Your task to perform on an android device: Empty the shopping cart on costco. Add macbook to the cart on costco Image 0: 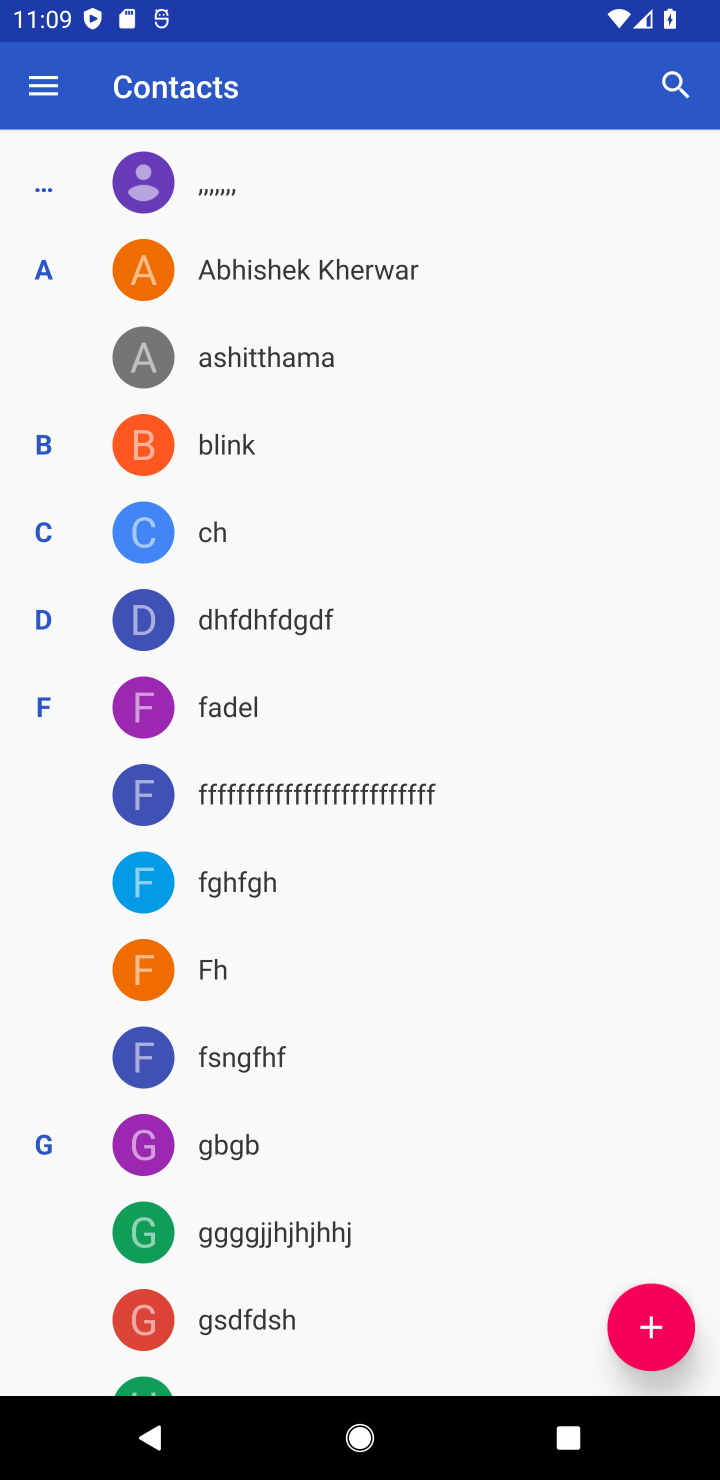
Step 0: press home button
Your task to perform on an android device: Empty the shopping cart on costco. Add macbook to the cart on costco Image 1: 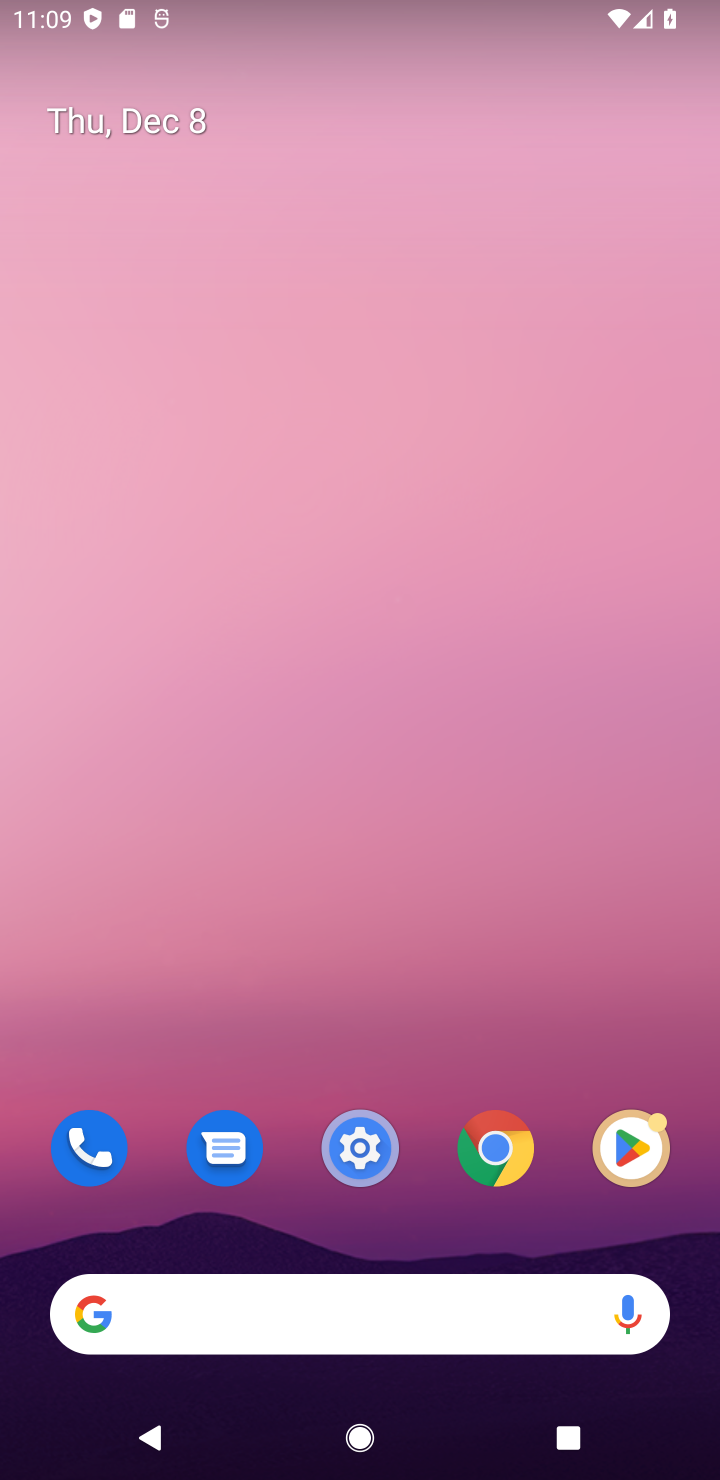
Step 1: click (298, 1316)
Your task to perform on an android device: Empty the shopping cart on costco. Add macbook to the cart on costco Image 2: 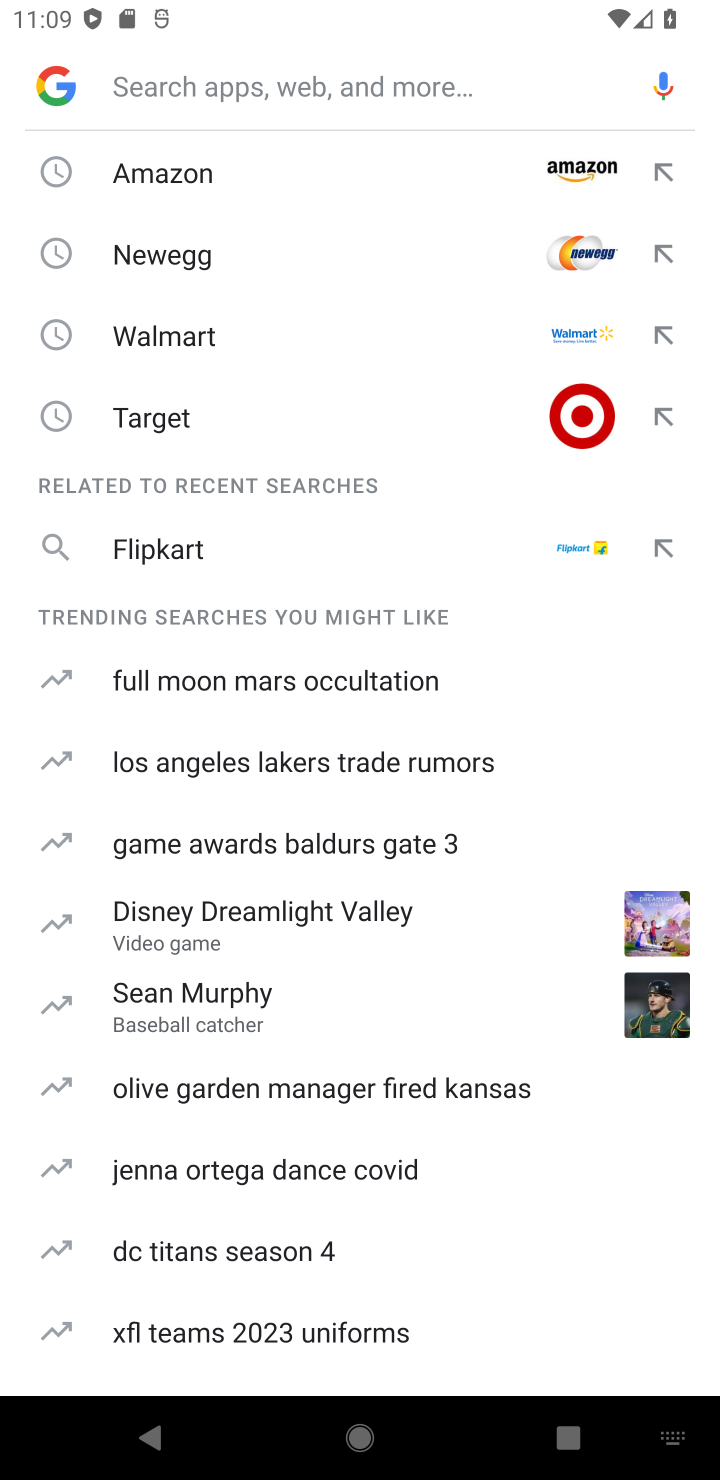
Step 2: type "costco"
Your task to perform on an android device: Empty the shopping cart on costco. Add macbook to the cart on costco Image 3: 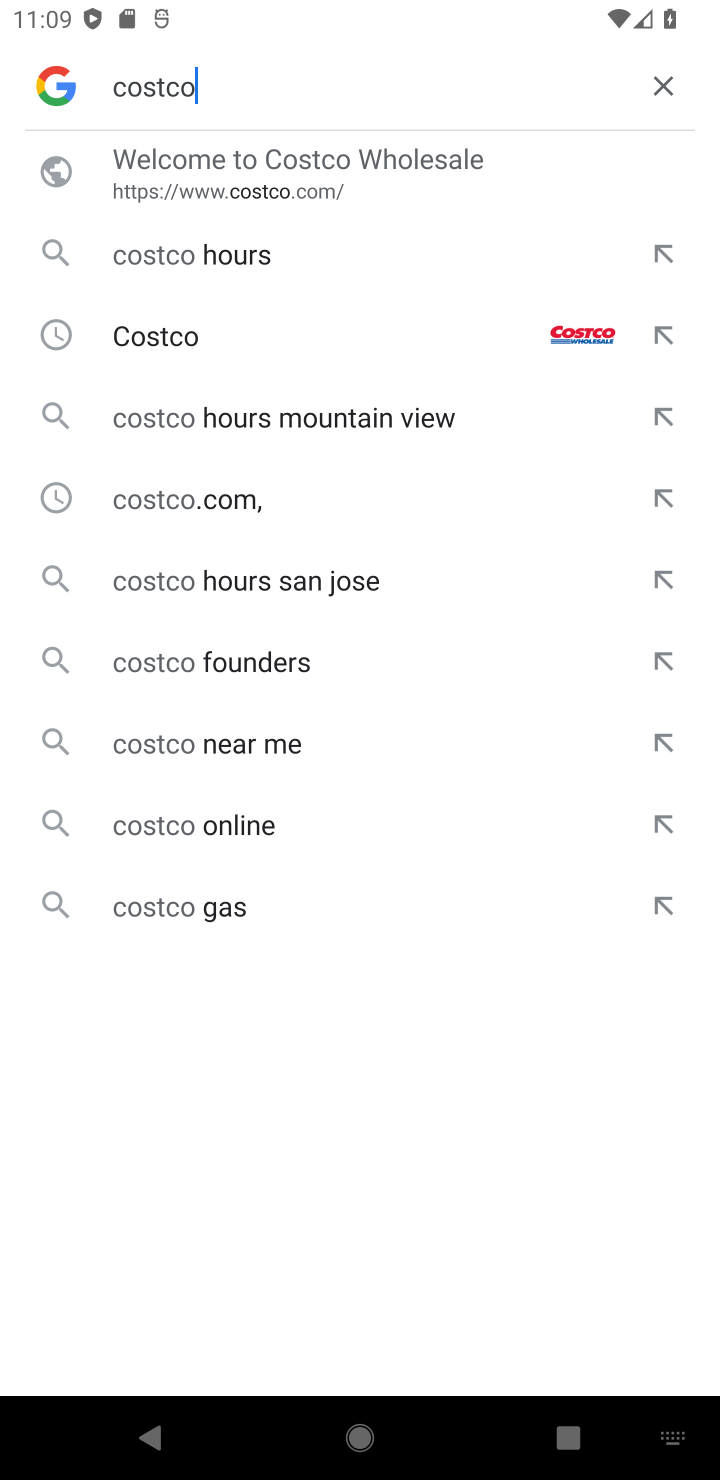
Step 3: click (170, 338)
Your task to perform on an android device: Empty the shopping cart on costco. Add macbook to the cart on costco Image 4: 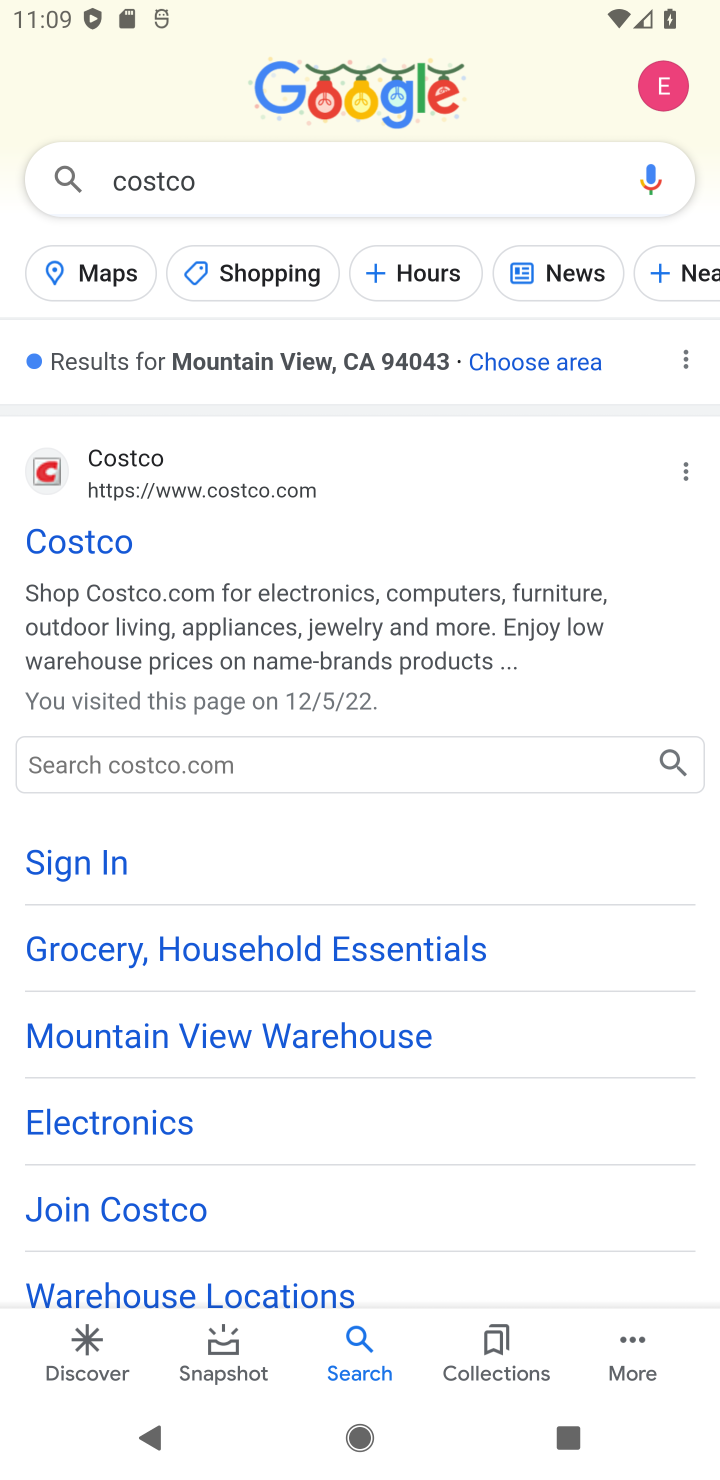
Step 4: click (85, 520)
Your task to perform on an android device: Empty the shopping cart on costco. Add macbook to the cart on costco Image 5: 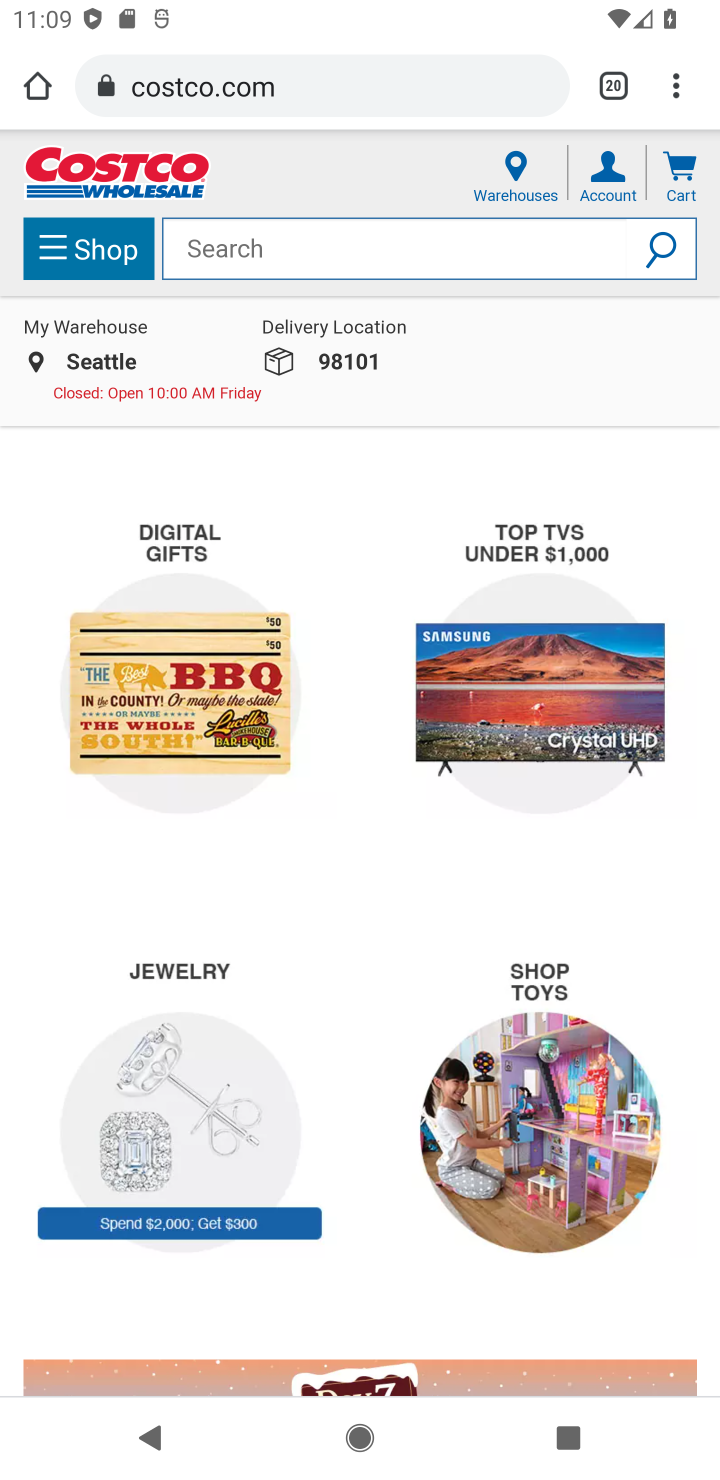
Step 5: click (341, 247)
Your task to perform on an android device: Empty the shopping cart on costco. Add macbook to the cart on costco Image 6: 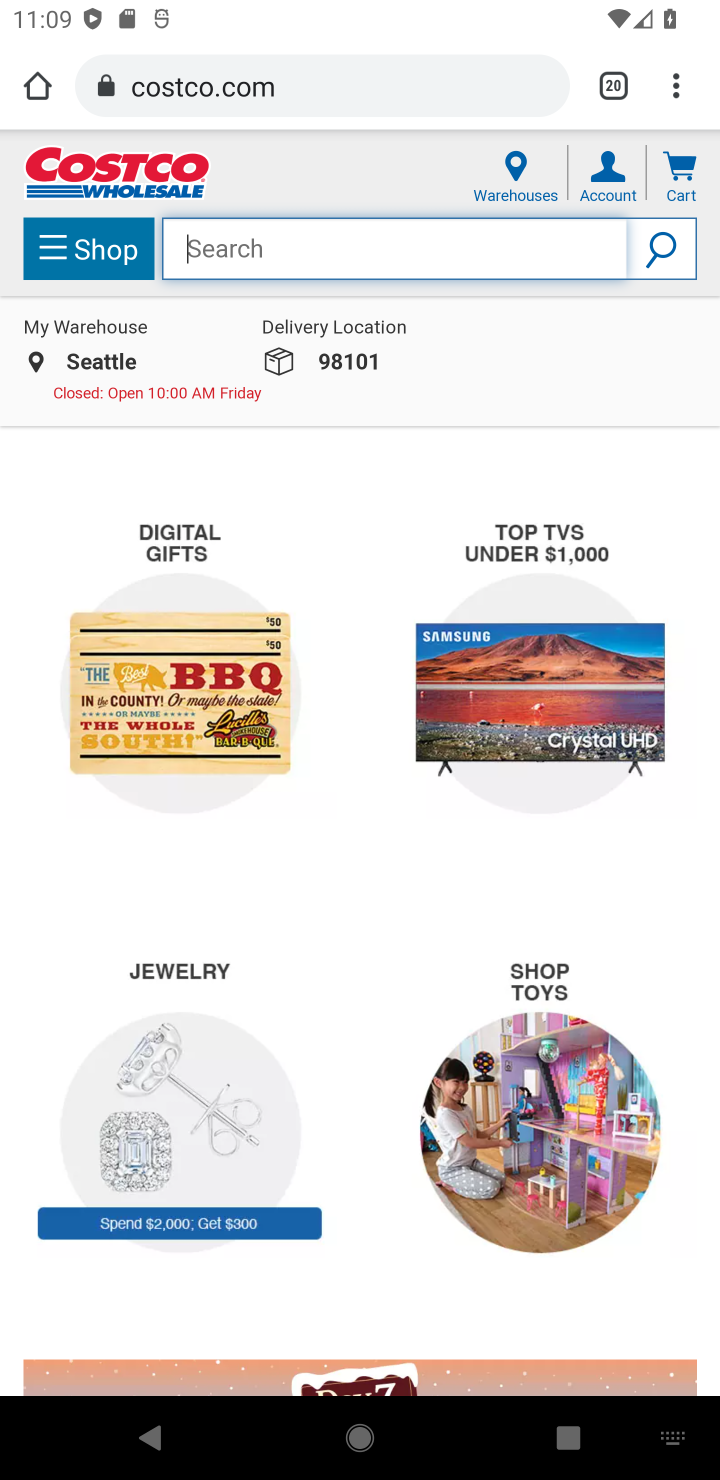
Step 6: click (672, 163)
Your task to perform on an android device: Empty the shopping cart on costco. Add macbook to the cart on costco Image 7: 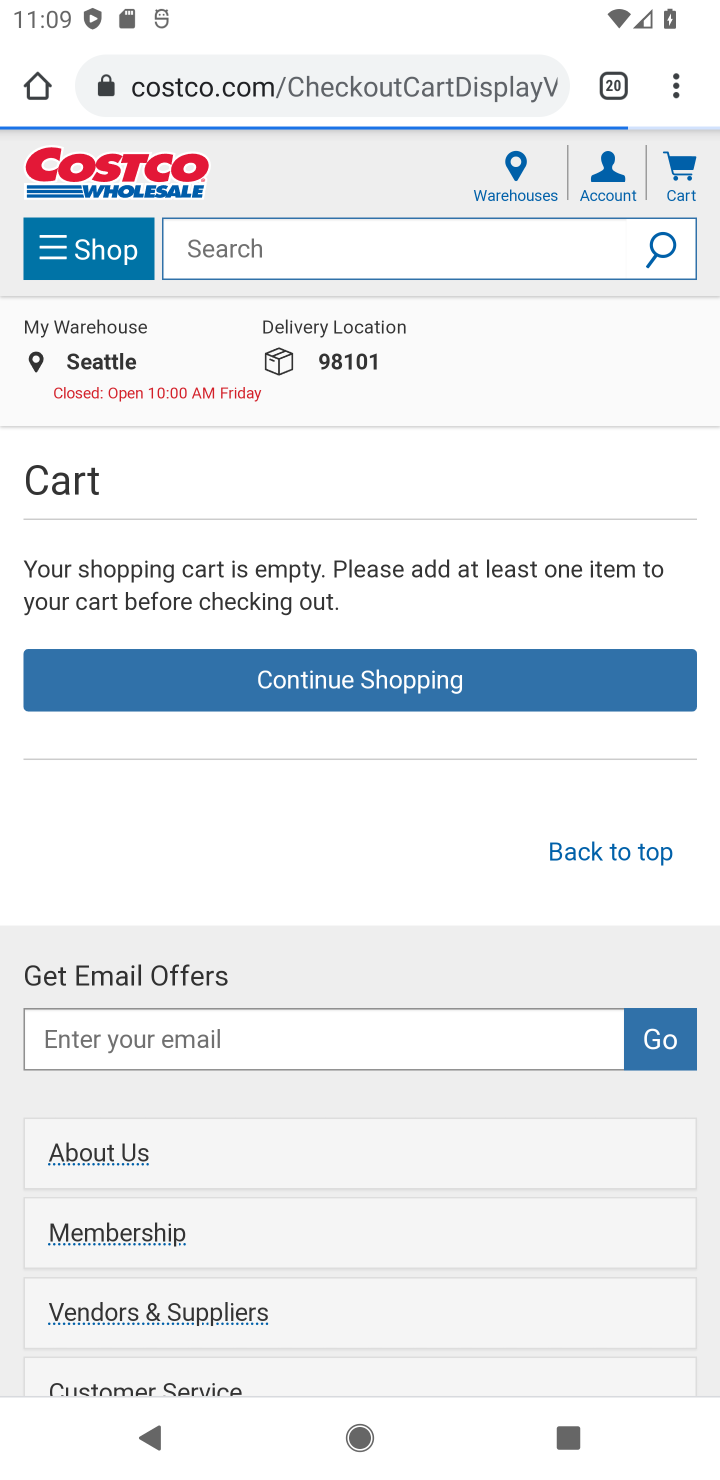
Step 7: click (266, 256)
Your task to perform on an android device: Empty the shopping cart on costco. Add macbook to the cart on costco Image 8: 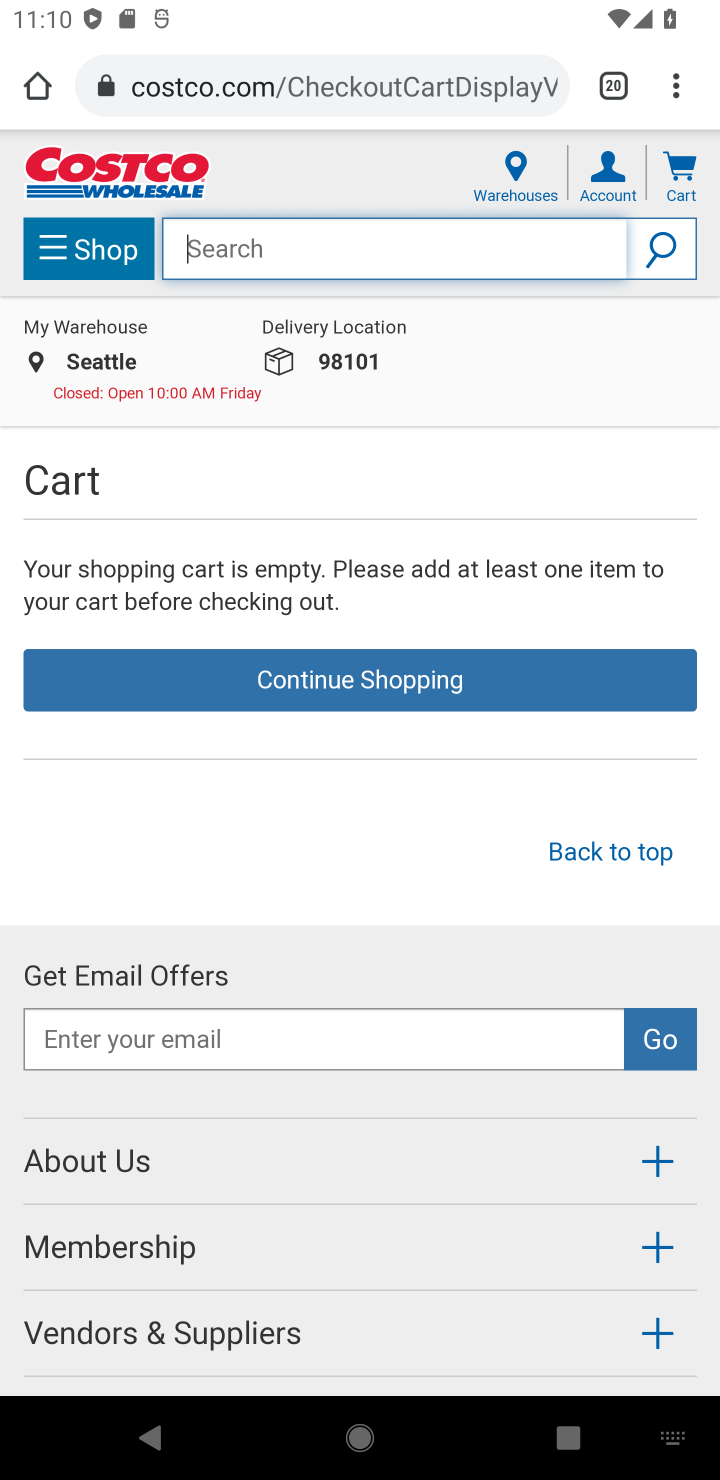
Step 8: type "macbook"
Your task to perform on an android device: Empty the shopping cart on costco. Add macbook to the cart on costco Image 9: 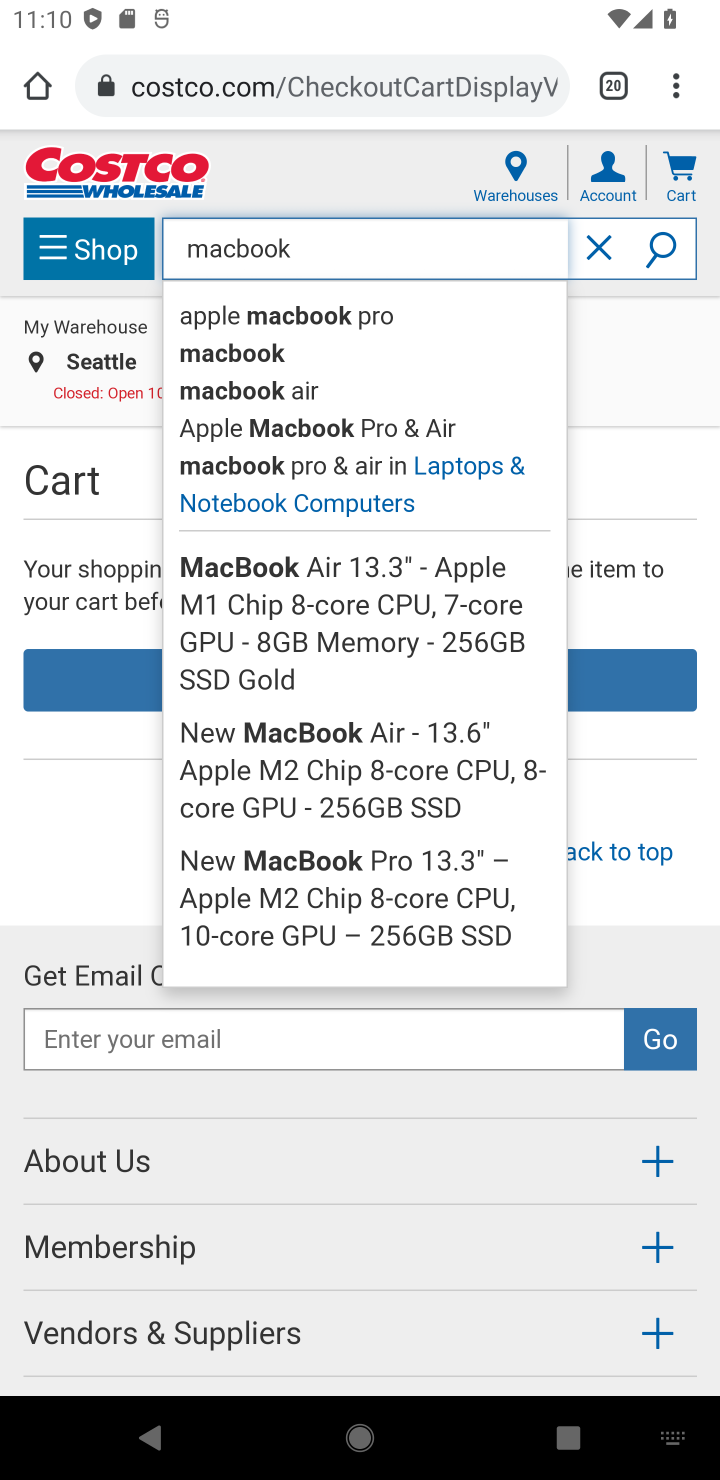
Step 9: click (262, 355)
Your task to perform on an android device: Empty the shopping cart on costco. Add macbook to the cart on costco Image 10: 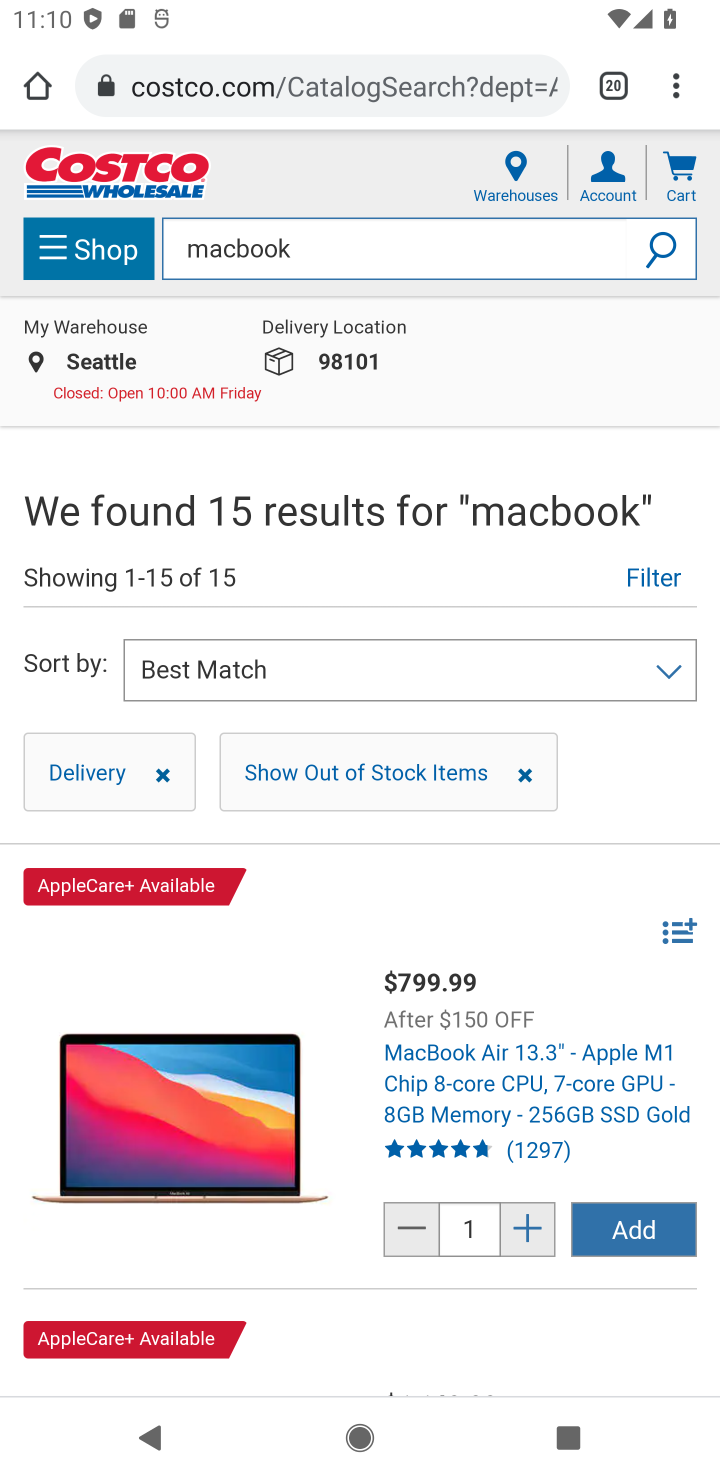
Step 10: click (610, 1233)
Your task to perform on an android device: Empty the shopping cart on costco. Add macbook to the cart on costco Image 11: 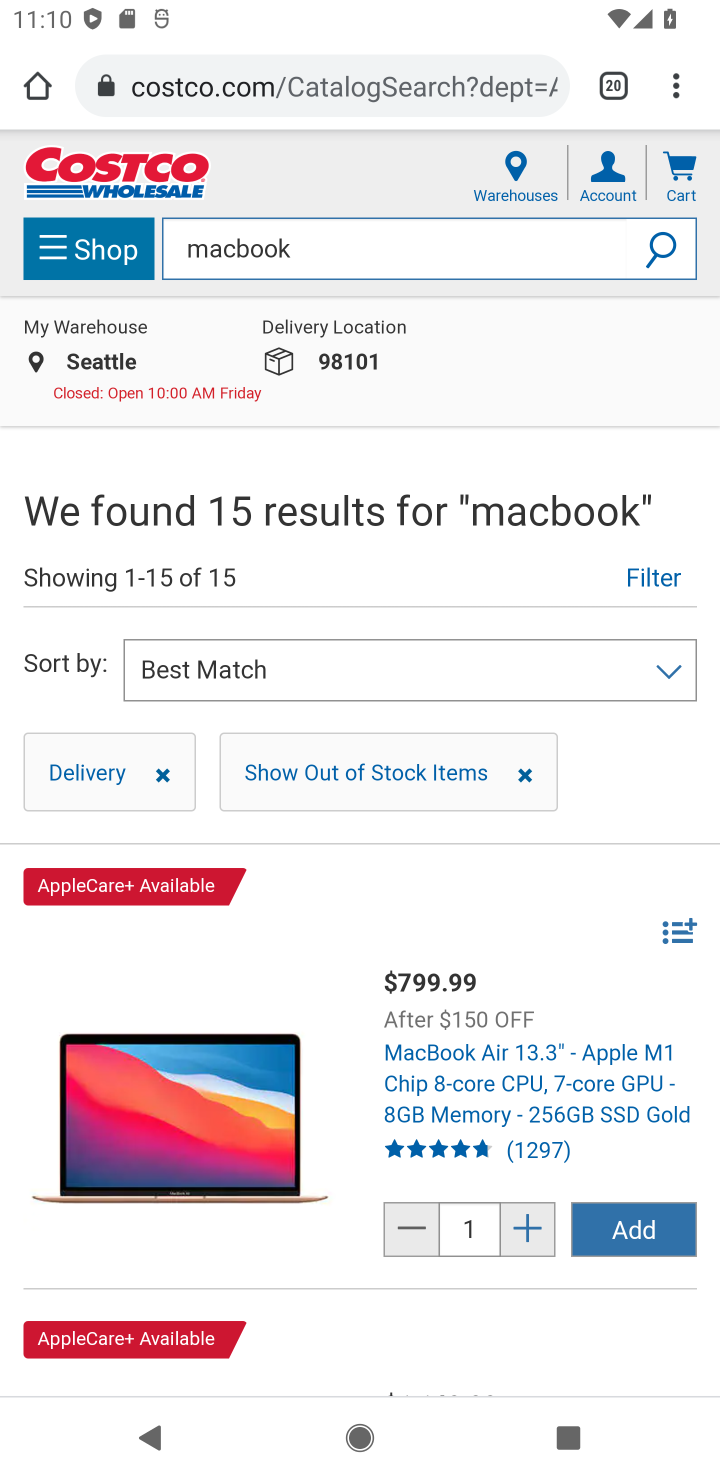
Step 11: click (694, 156)
Your task to perform on an android device: Empty the shopping cart on costco. Add macbook to the cart on costco Image 12: 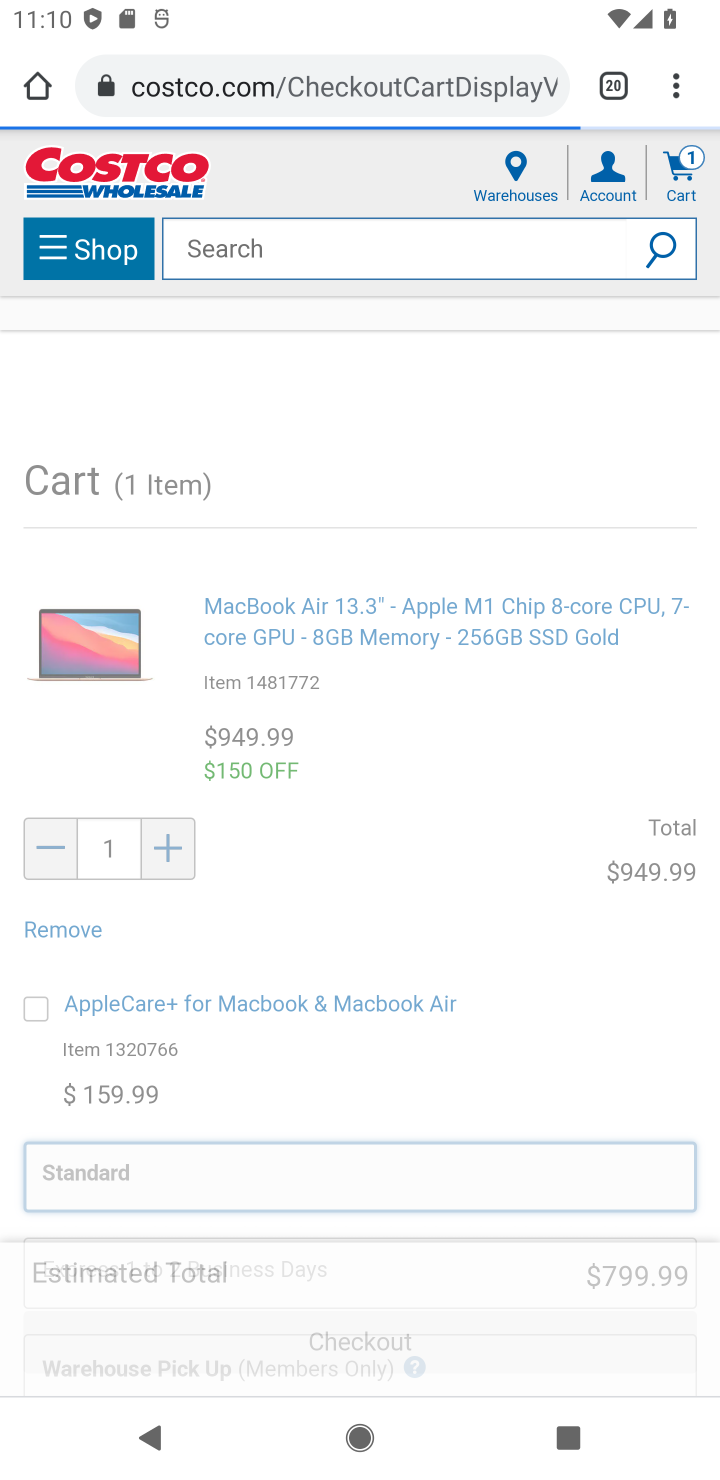
Step 12: task complete